Your task to perform on an android device: find which apps use the phone's location Image 0: 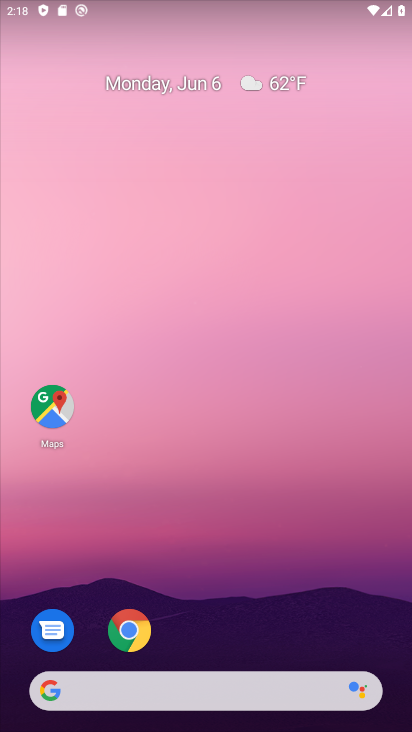
Step 0: drag from (278, 627) to (342, 148)
Your task to perform on an android device: find which apps use the phone's location Image 1: 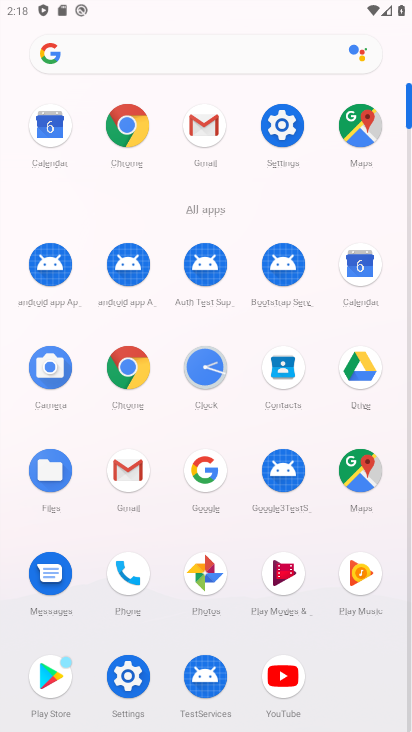
Step 1: click (123, 574)
Your task to perform on an android device: find which apps use the phone's location Image 2: 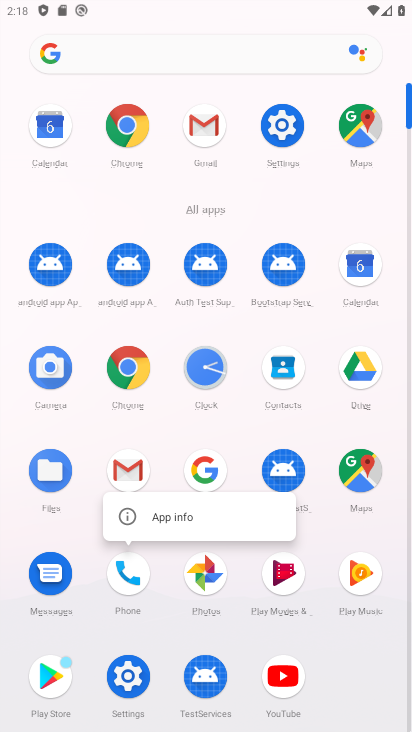
Step 2: click (177, 518)
Your task to perform on an android device: find which apps use the phone's location Image 3: 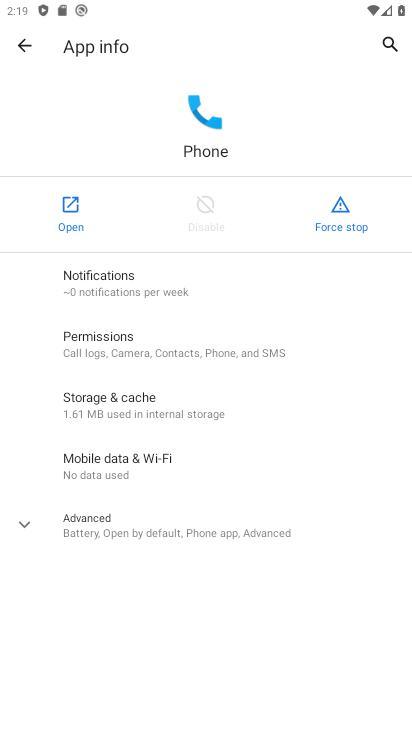
Step 3: click (109, 341)
Your task to perform on an android device: find which apps use the phone's location Image 4: 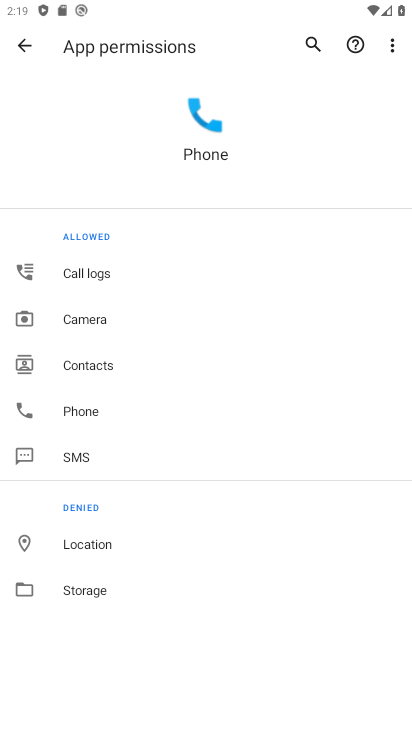
Step 4: click (81, 541)
Your task to perform on an android device: find which apps use the phone's location Image 5: 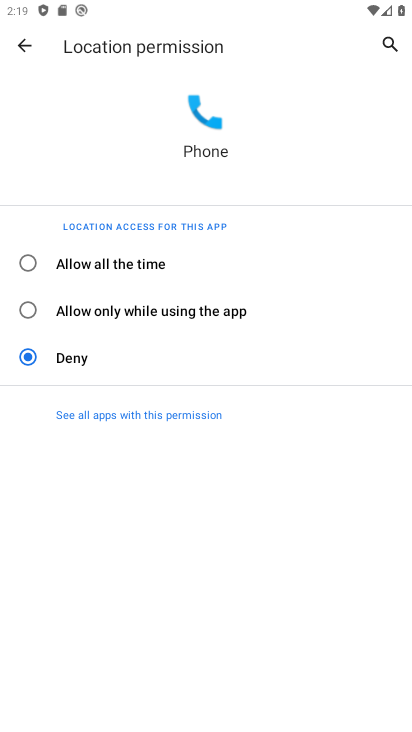
Step 5: task complete